Your task to perform on an android device: toggle notifications settings in the gmail app Image 0: 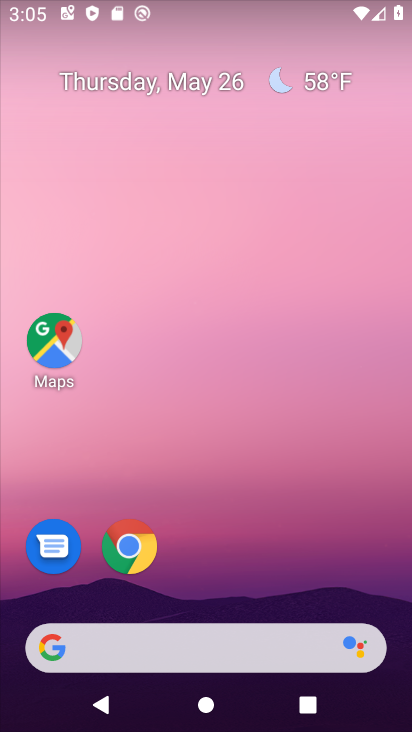
Step 0: drag from (223, 8) to (272, 401)
Your task to perform on an android device: toggle notifications settings in the gmail app Image 1: 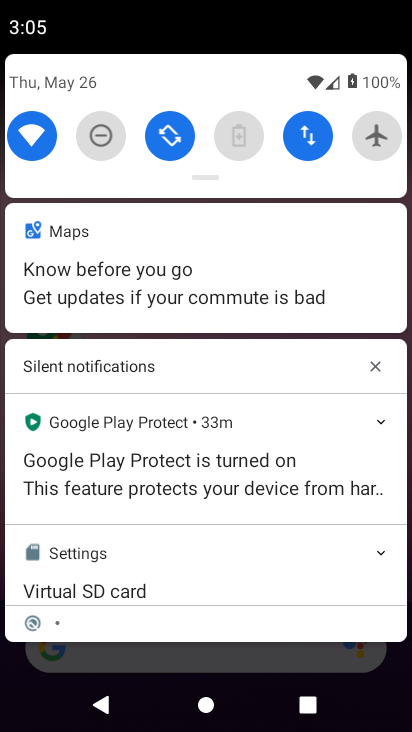
Step 1: click (100, 131)
Your task to perform on an android device: toggle notifications settings in the gmail app Image 2: 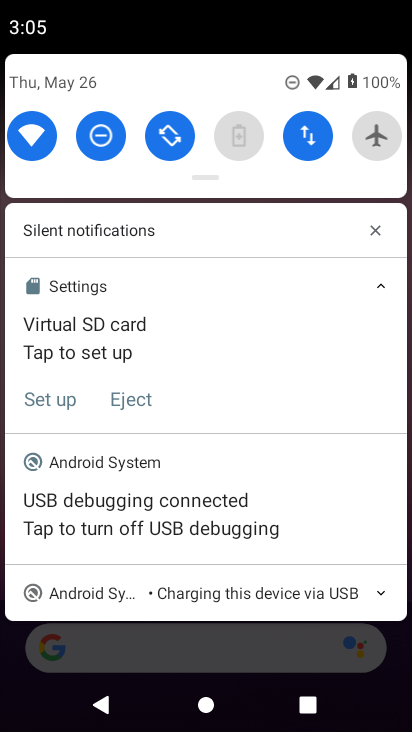
Step 2: task complete